Your task to perform on an android device: Open Reddit.com Image 0: 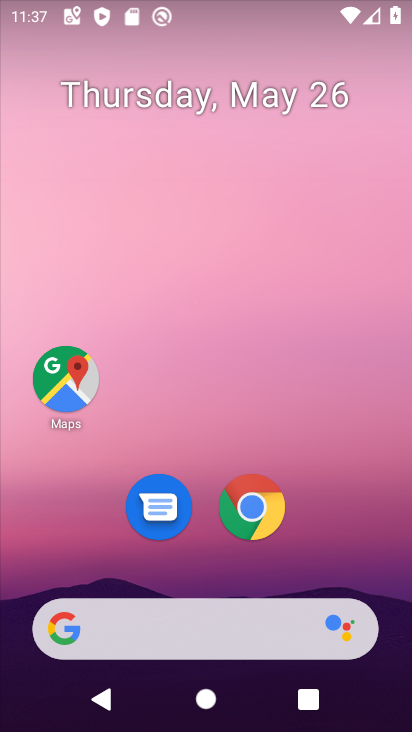
Step 0: click (244, 505)
Your task to perform on an android device: Open Reddit.com Image 1: 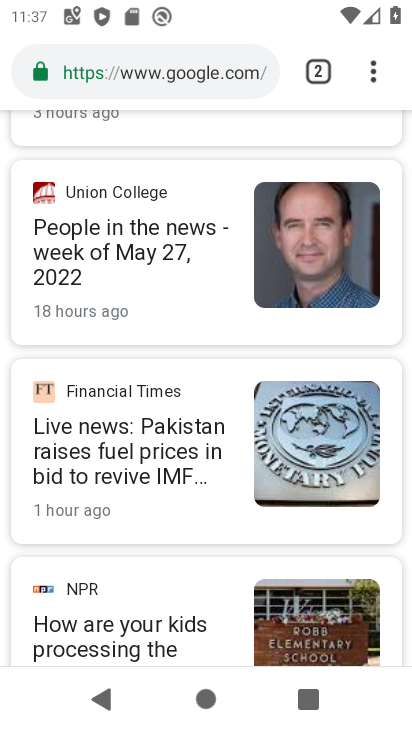
Step 1: click (205, 72)
Your task to perform on an android device: Open Reddit.com Image 2: 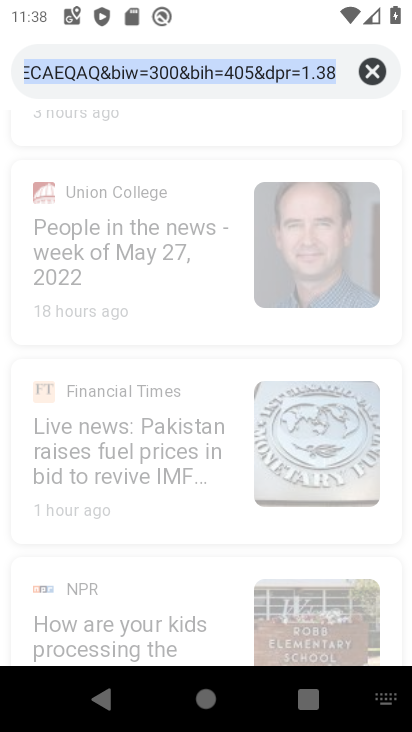
Step 2: type "reddit.com"
Your task to perform on an android device: Open Reddit.com Image 3: 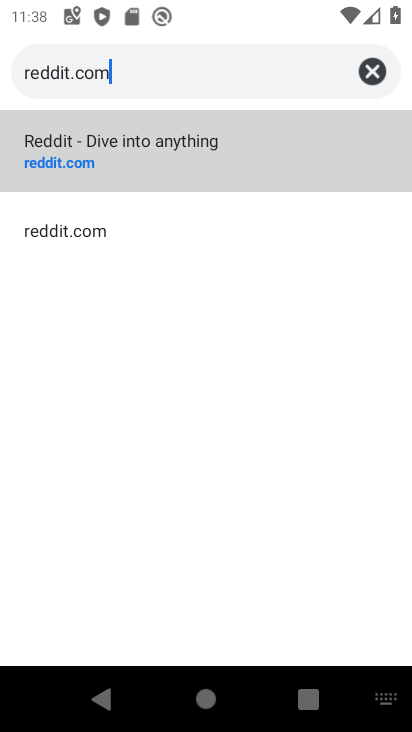
Step 3: click (85, 168)
Your task to perform on an android device: Open Reddit.com Image 4: 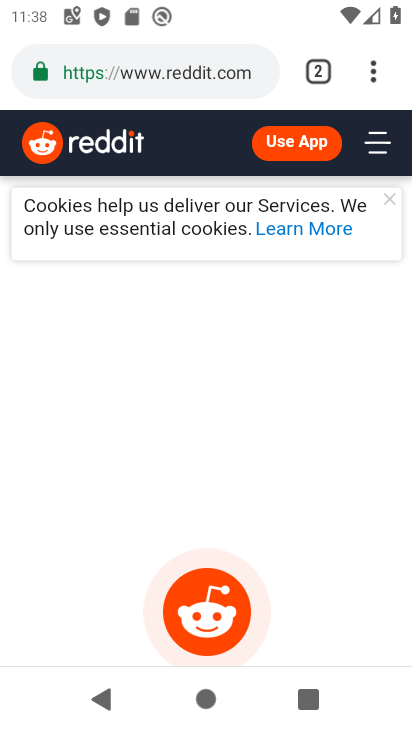
Step 4: task complete